Your task to perform on an android device: move an email to a new category in the gmail app Image 0: 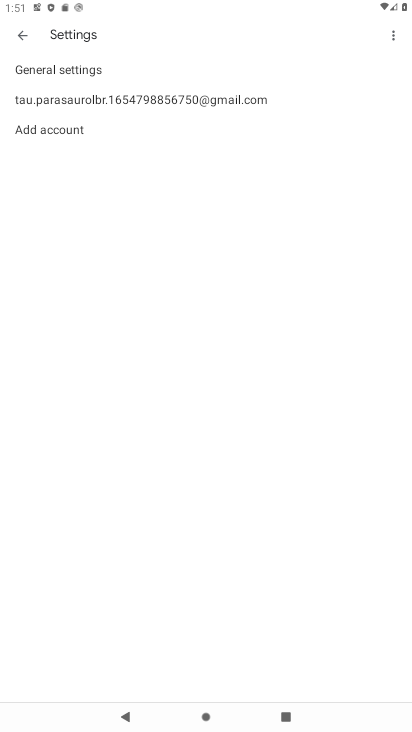
Step 0: press home button
Your task to perform on an android device: move an email to a new category in the gmail app Image 1: 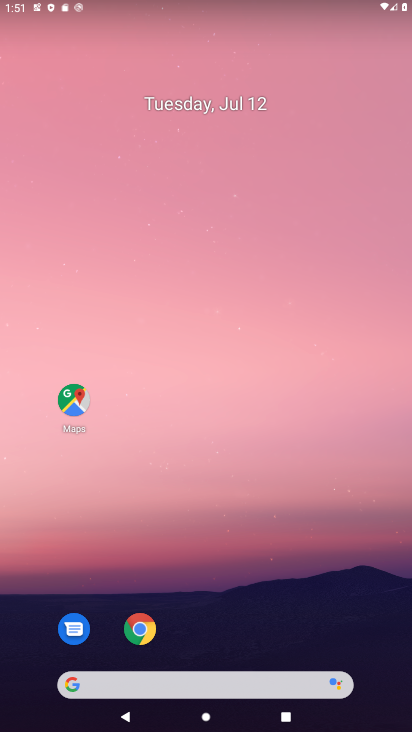
Step 1: drag from (358, 614) to (318, 220)
Your task to perform on an android device: move an email to a new category in the gmail app Image 2: 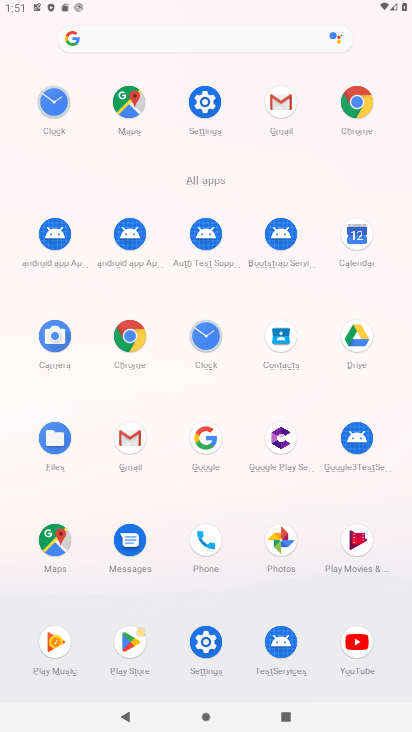
Step 2: click (290, 107)
Your task to perform on an android device: move an email to a new category in the gmail app Image 3: 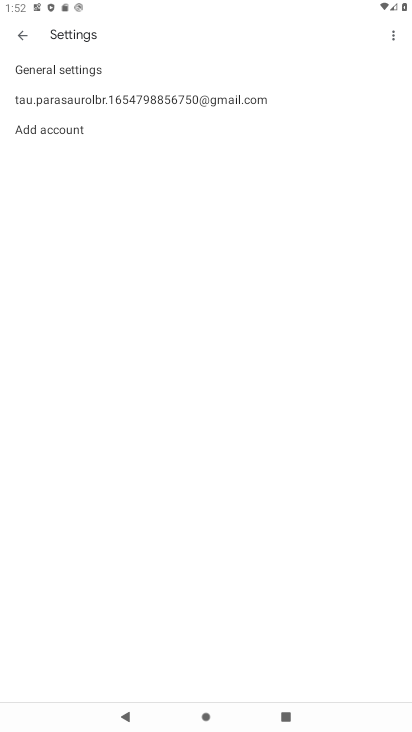
Step 3: click (19, 34)
Your task to perform on an android device: move an email to a new category in the gmail app Image 4: 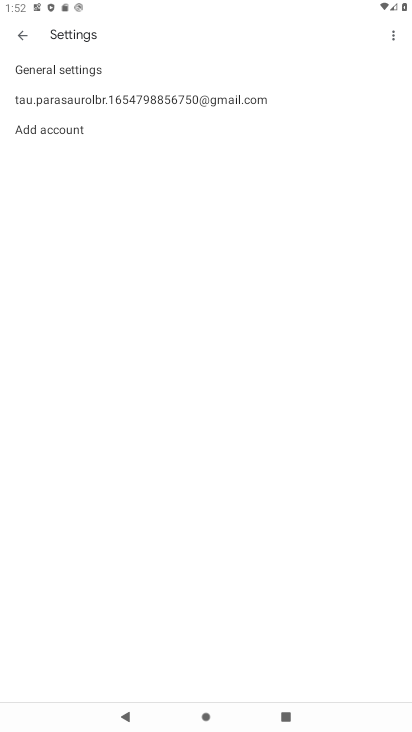
Step 4: click (24, 34)
Your task to perform on an android device: move an email to a new category in the gmail app Image 5: 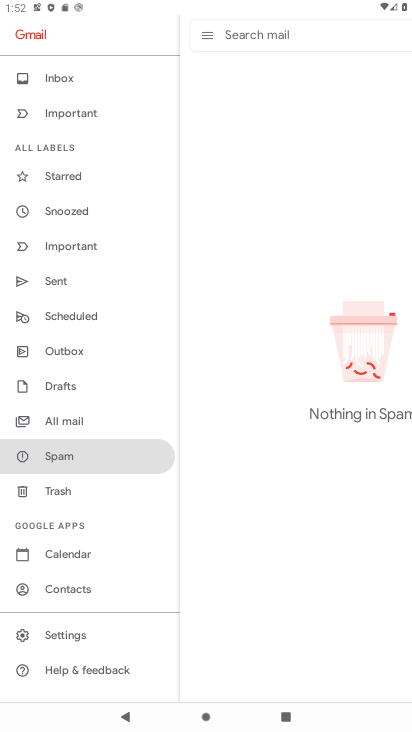
Step 5: click (106, 83)
Your task to perform on an android device: move an email to a new category in the gmail app Image 6: 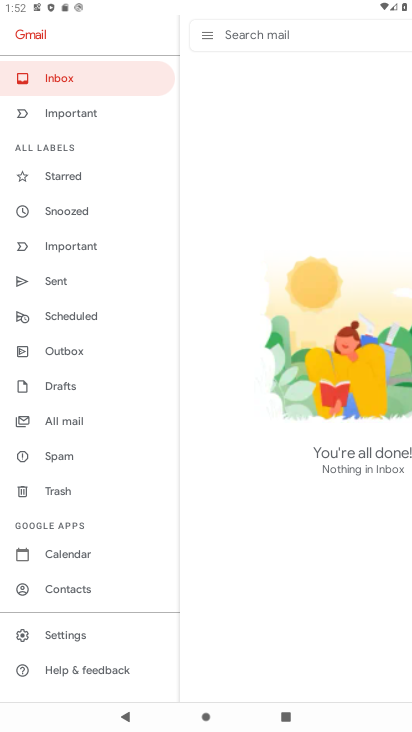
Step 6: task complete